Your task to perform on an android device: Go to Android settings Image 0: 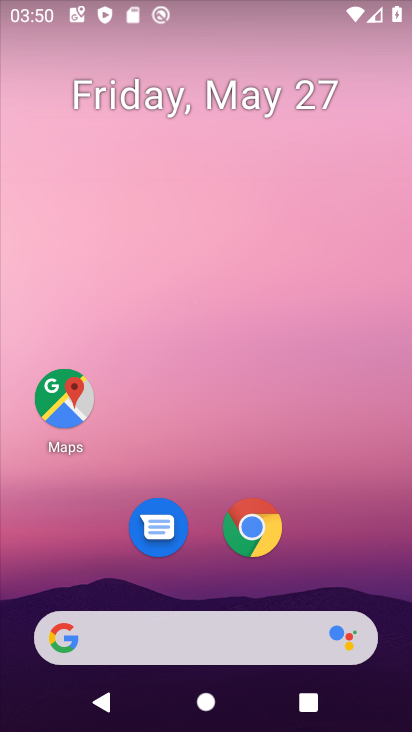
Step 0: press home button
Your task to perform on an android device: Go to Android settings Image 1: 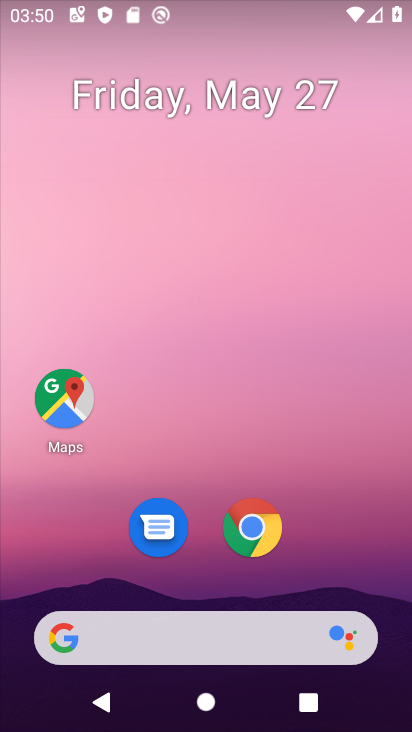
Step 1: drag from (375, 566) to (367, 315)
Your task to perform on an android device: Go to Android settings Image 2: 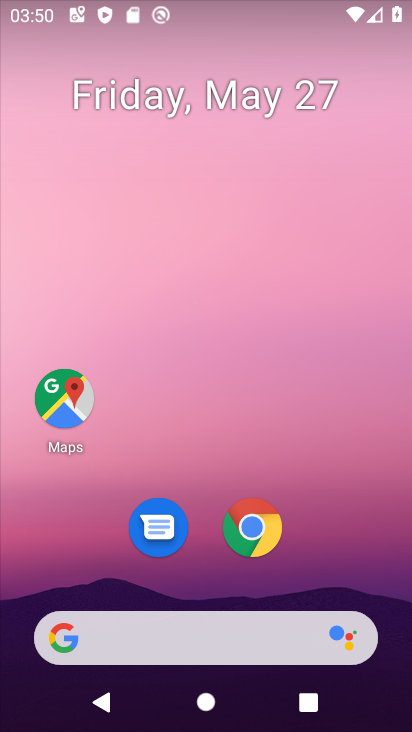
Step 2: drag from (330, 541) to (313, 35)
Your task to perform on an android device: Go to Android settings Image 3: 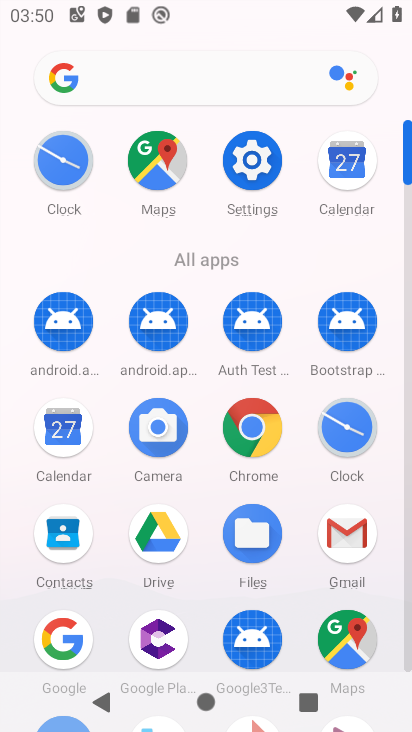
Step 3: click (262, 157)
Your task to perform on an android device: Go to Android settings Image 4: 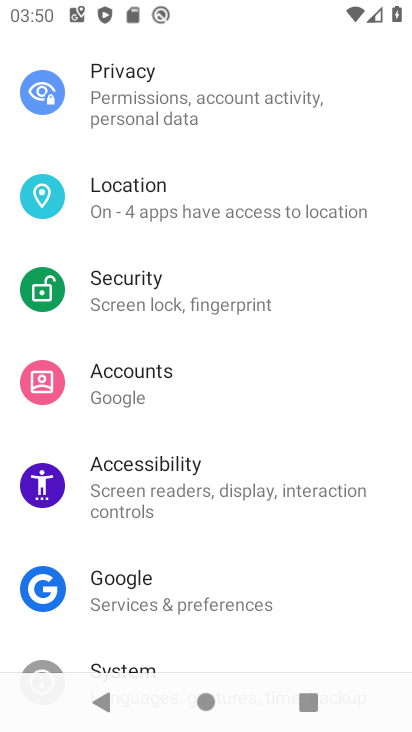
Step 4: drag from (274, 644) to (210, 46)
Your task to perform on an android device: Go to Android settings Image 5: 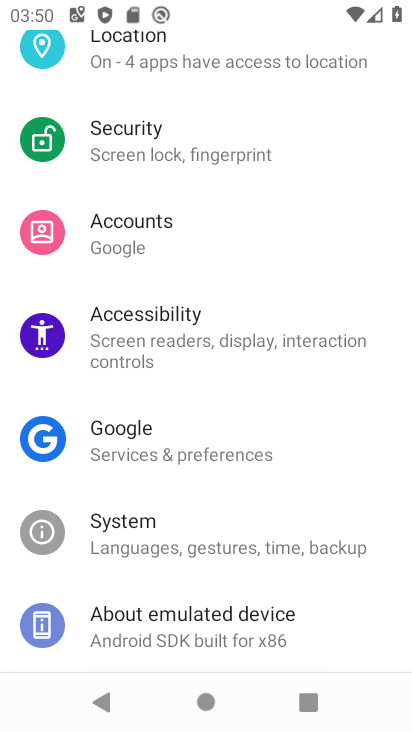
Step 5: drag from (205, 474) to (201, 196)
Your task to perform on an android device: Go to Android settings Image 6: 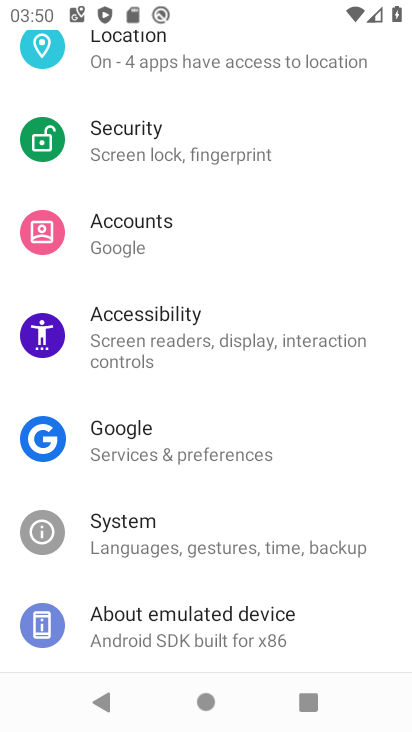
Step 6: drag from (217, 499) to (222, 111)
Your task to perform on an android device: Go to Android settings Image 7: 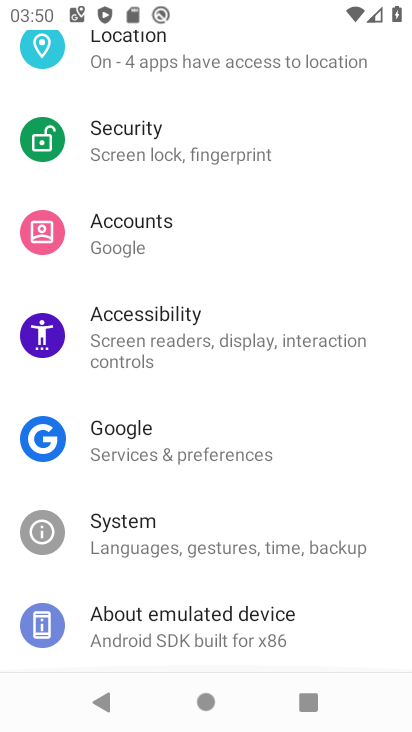
Step 7: click (214, 616)
Your task to perform on an android device: Go to Android settings Image 8: 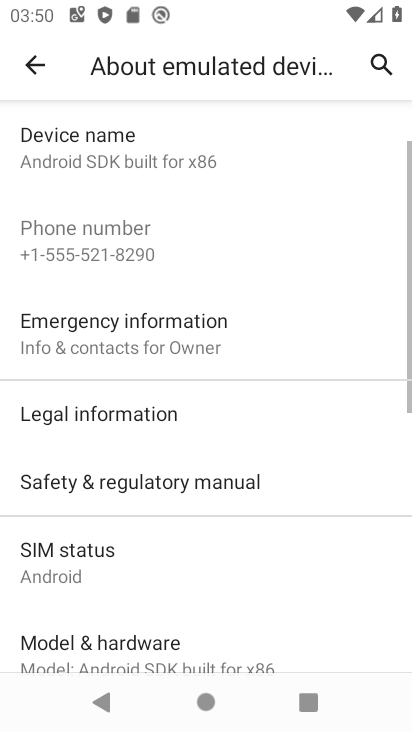
Step 8: drag from (239, 541) to (246, 41)
Your task to perform on an android device: Go to Android settings Image 9: 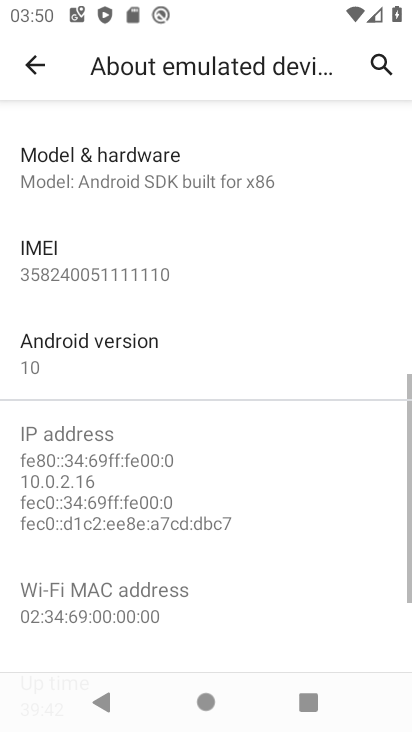
Step 9: click (212, 338)
Your task to perform on an android device: Go to Android settings Image 10: 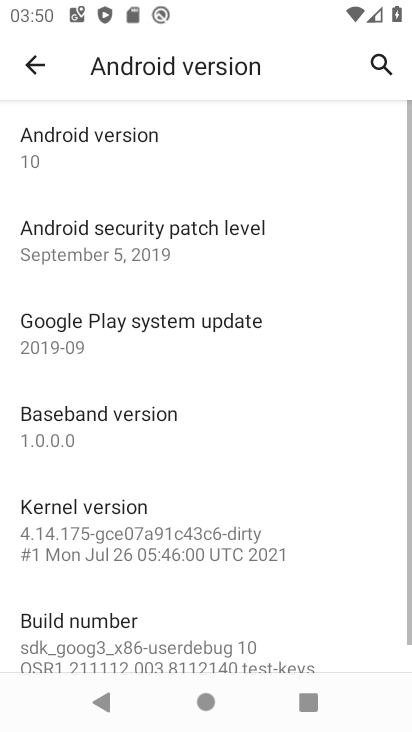
Step 10: task complete